Your task to perform on an android device: change the clock display to show seconds Image 0: 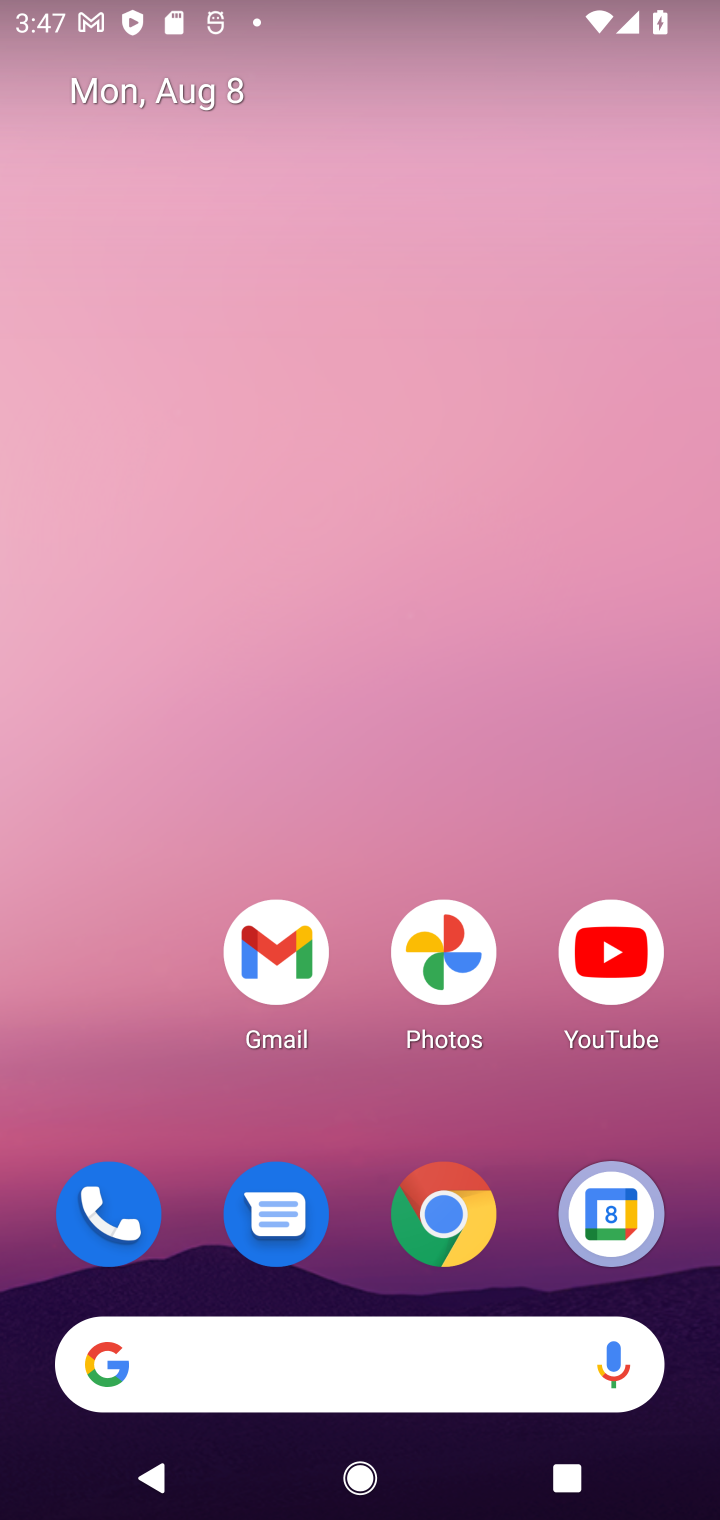
Step 0: drag from (364, 1294) to (364, 246)
Your task to perform on an android device: change the clock display to show seconds Image 1: 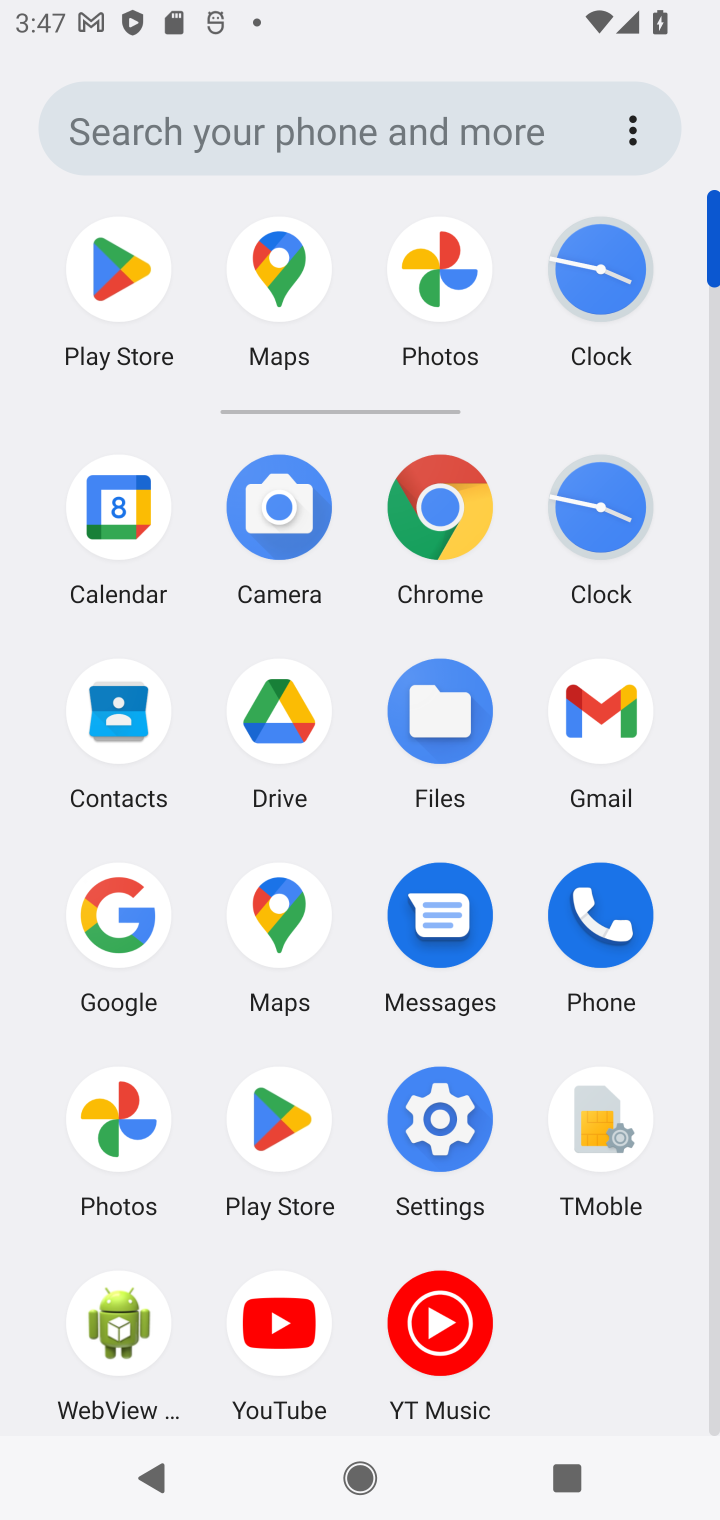
Step 1: click (600, 506)
Your task to perform on an android device: change the clock display to show seconds Image 2: 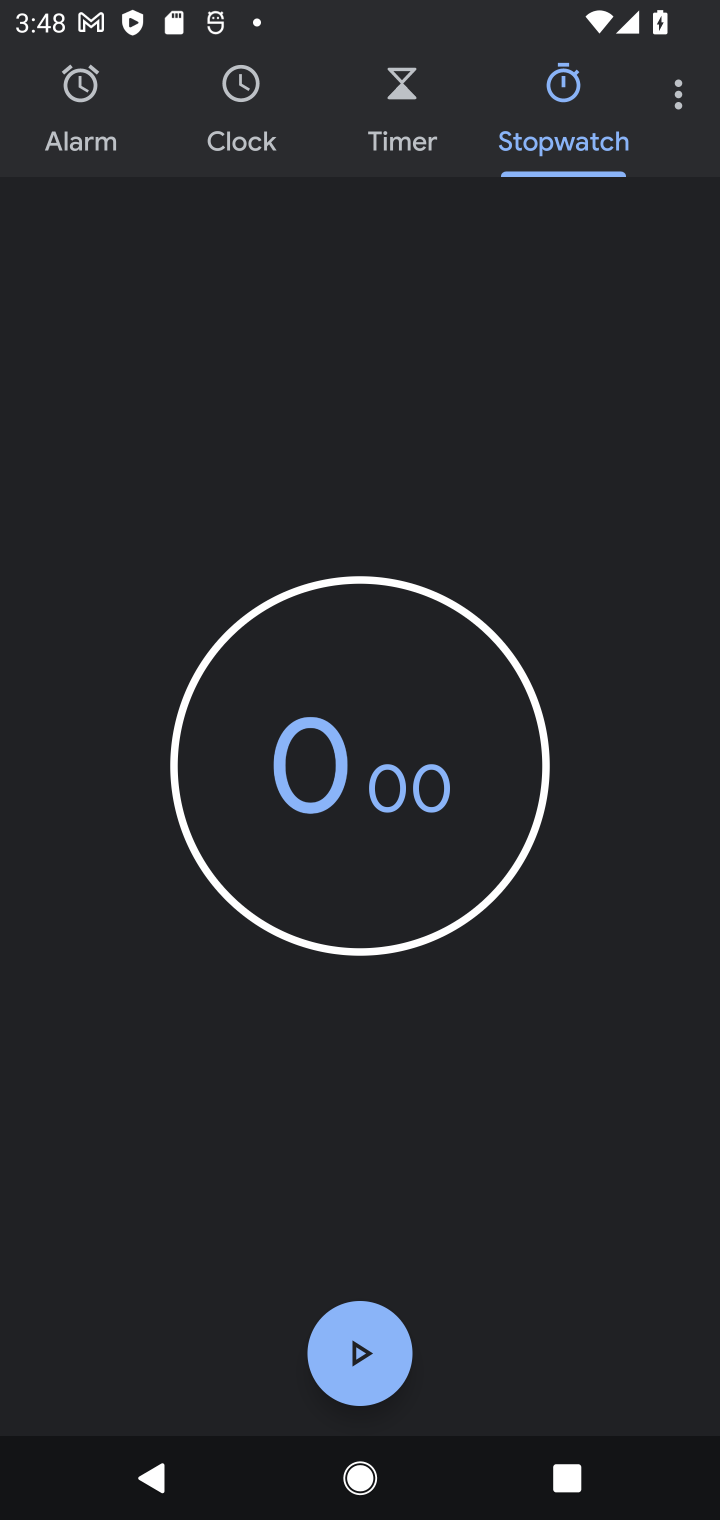
Step 2: click (678, 102)
Your task to perform on an android device: change the clock display to show seconds Image 3: 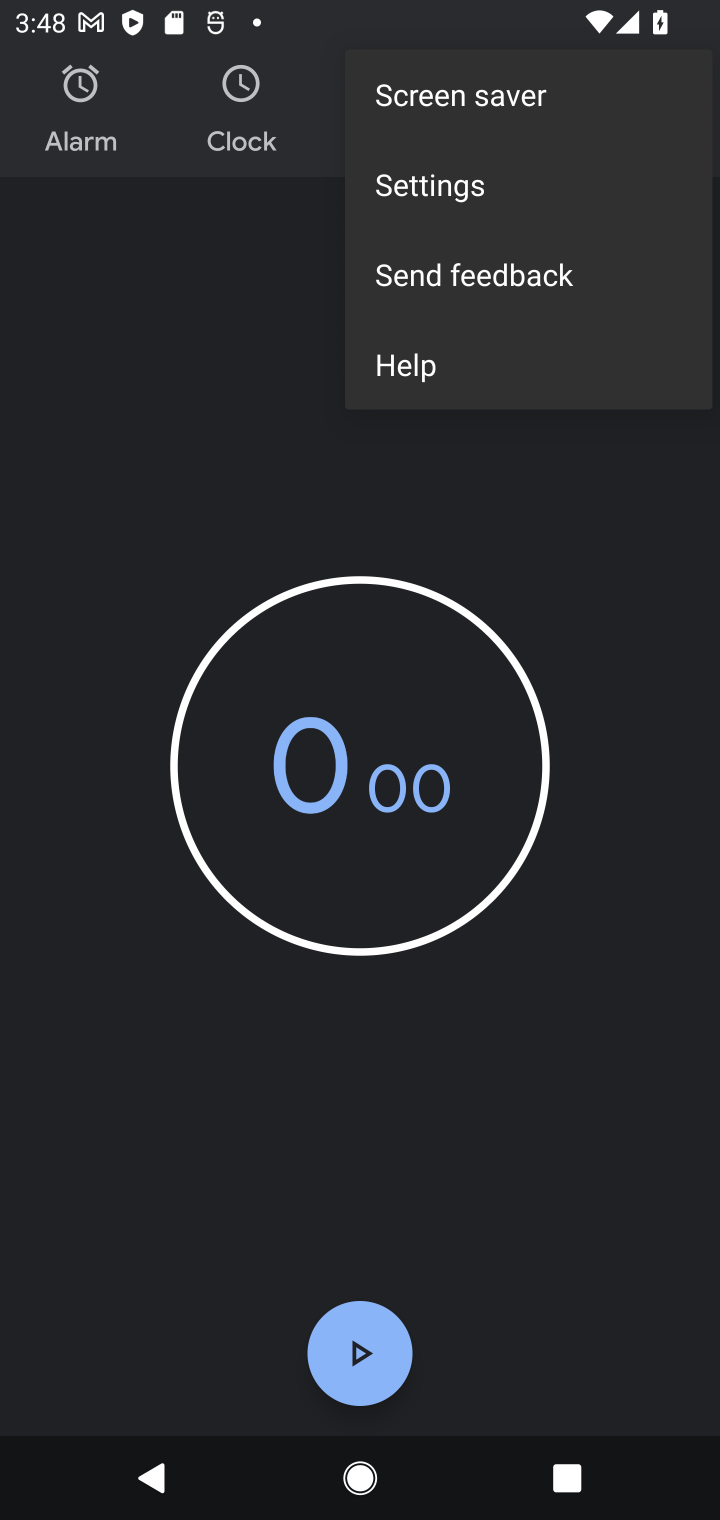
Step 3: click (469, 181)
Your task to perform on an android device: change the clock display to show seconds Image 4: 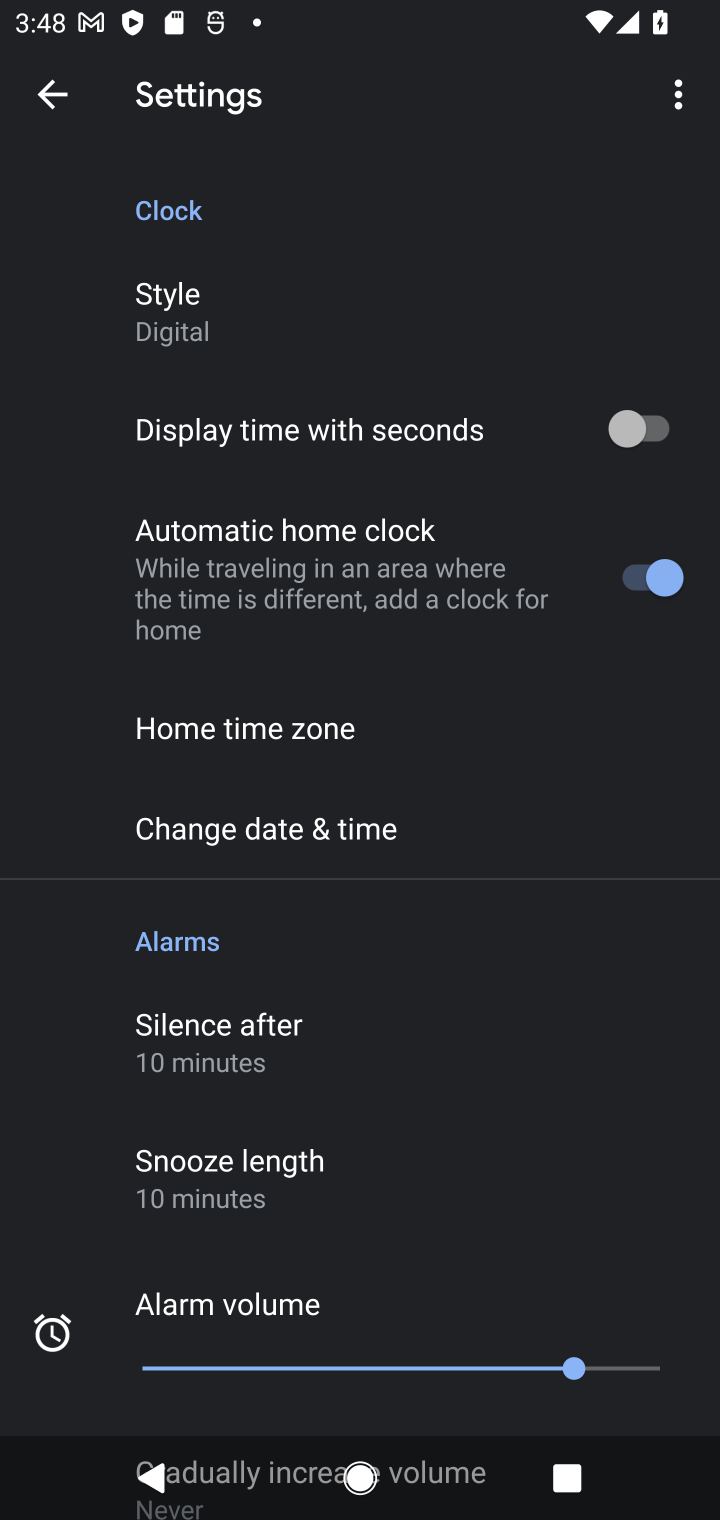
Step 4: click (648, 423)
Your task to perform on an android device: change the clock display to show seconds Image 5: 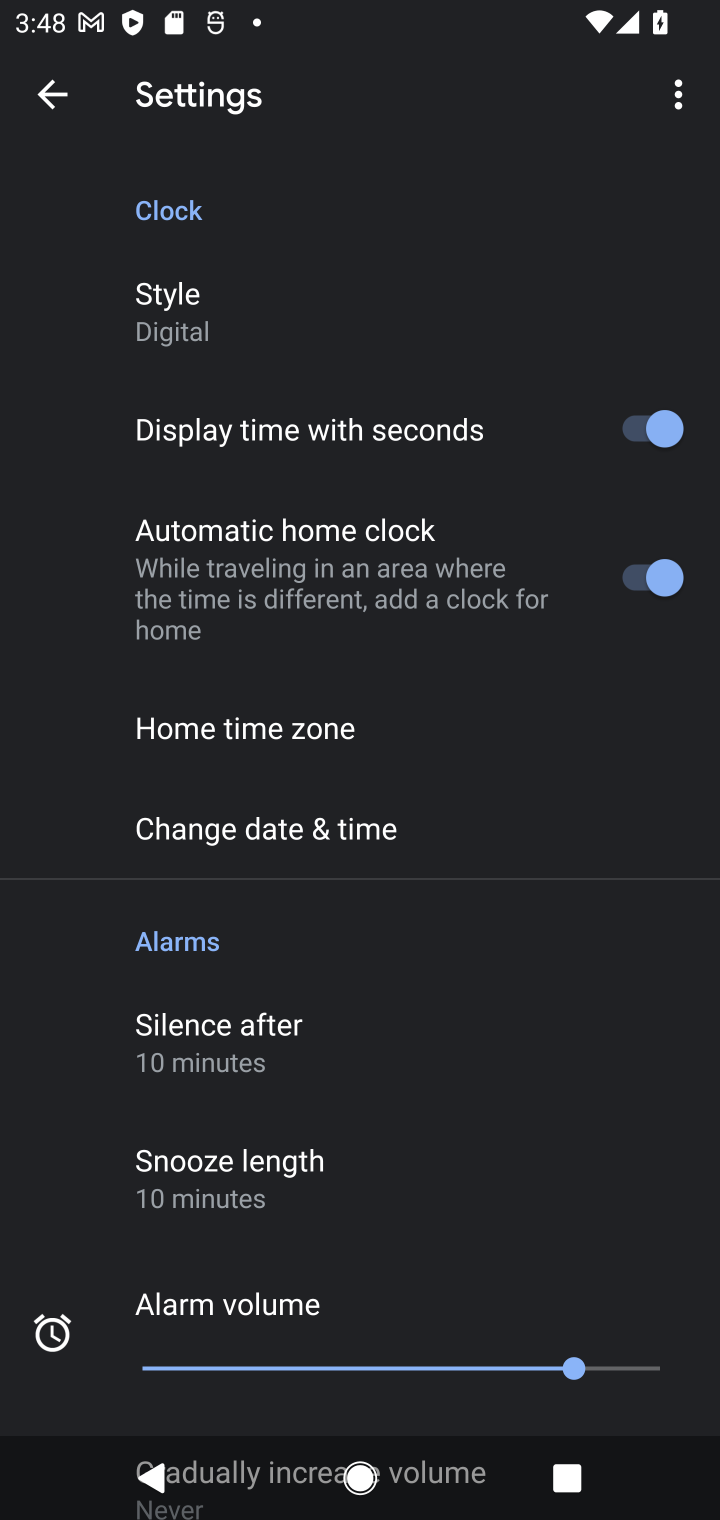
Step 5: task complete